Your task to perform on an android device: create a new album in the google photos Image 0: 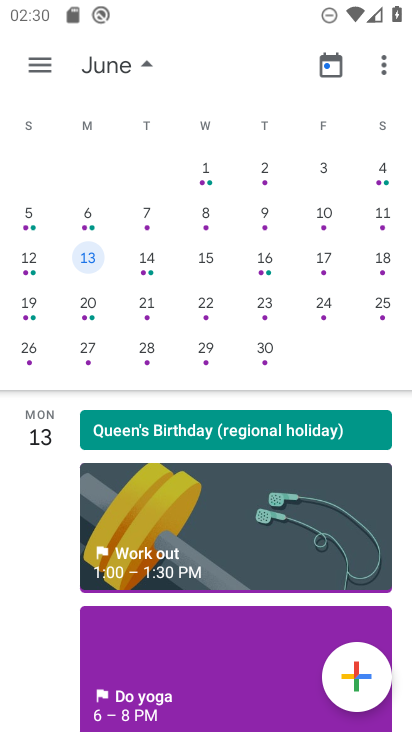
Step 0: press home button
Your task to perform on an android device: create a new album in the google photos Image 1: 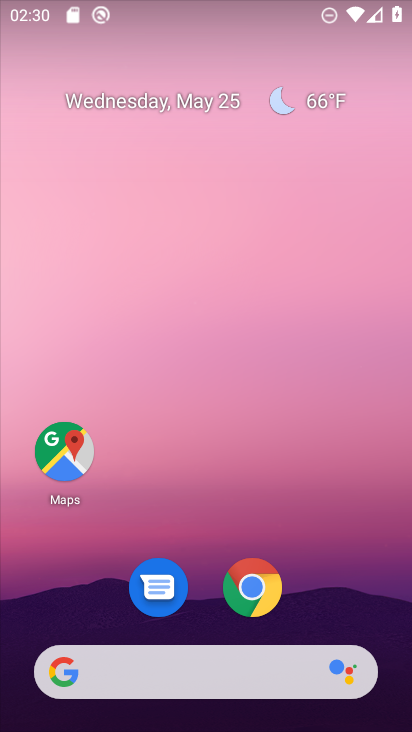
Step 1: drag from (391, 628) to (378, 234)
Your task to perform on an android device: create a new album in the google photos Image 2: 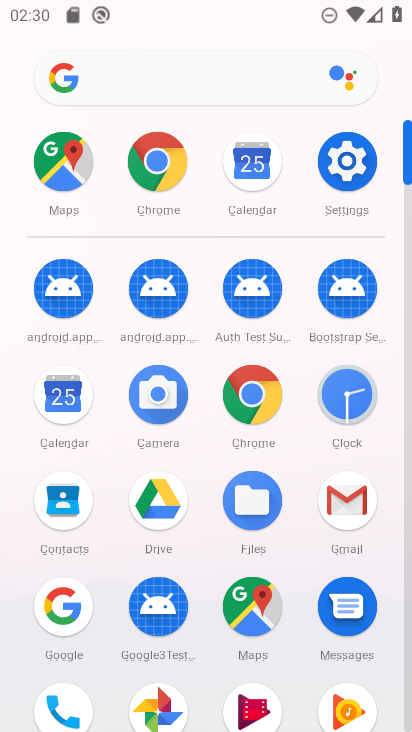
Step 2: drag from (290, 667) to (298, 444)
Your task to perform on an android device: create a new album in the google photos Image 3: 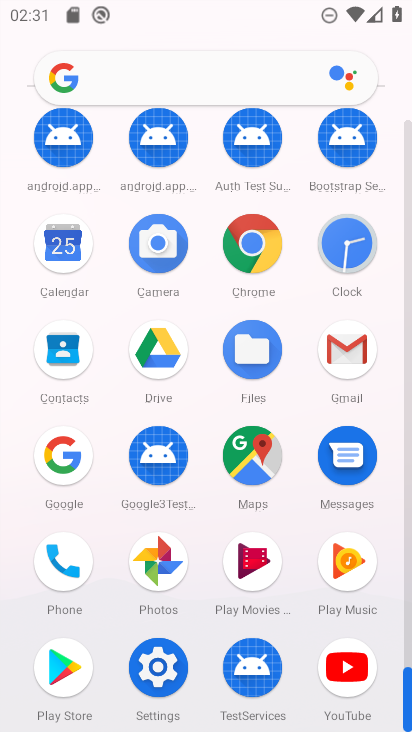
Step 3: click (161, 560)
Your task to perform on an android device: create a new album in the google photos Image 4: 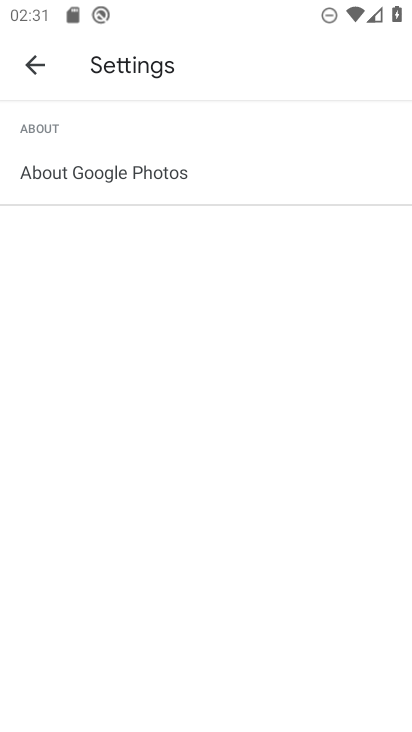
Step 4: click (34, 54)
Your task to perform on an android device: create a new album in the google photos Image 5: 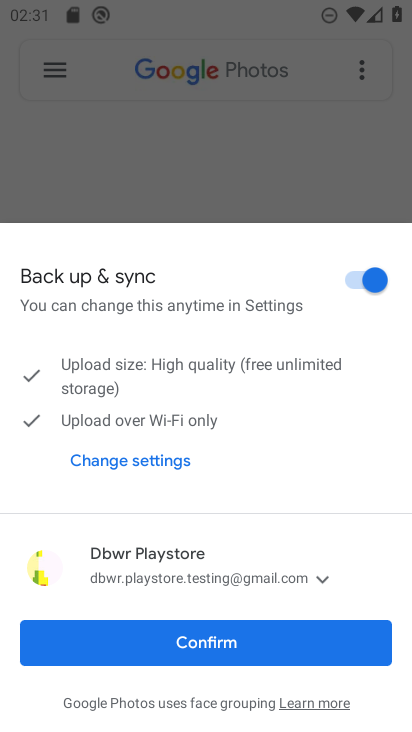
Step 5: click (293, 637)
Your task to perform on an android device: create a new album in the google photos Image 6: 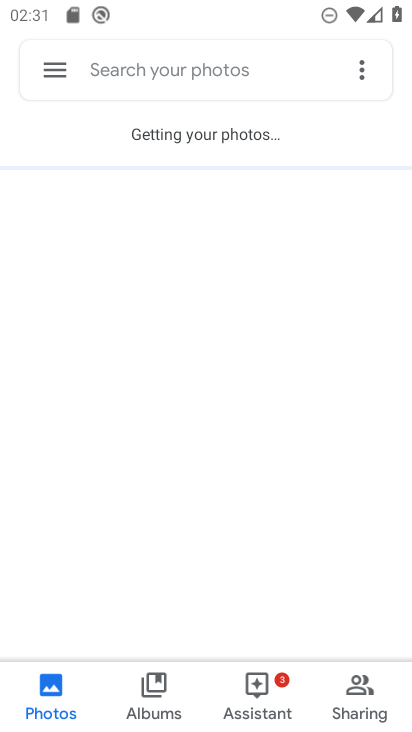
Step 6: click (360, 77)
Your task to perform on an android device: create a new album in the google photos Image 7: 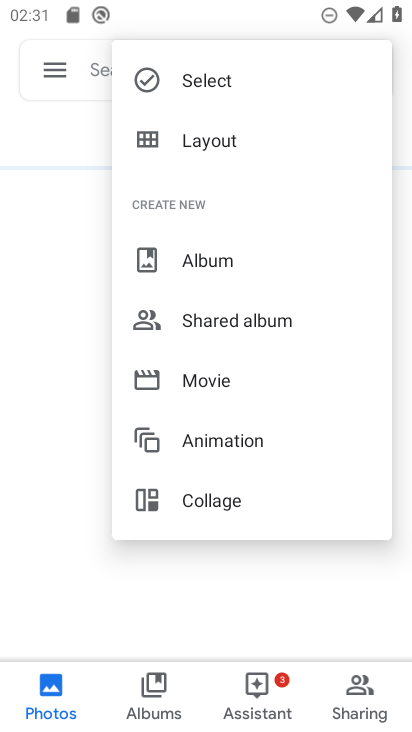
Step 7: click (226, 258)
Your task to perform on an android device: create a new album in the google photos Image 8: 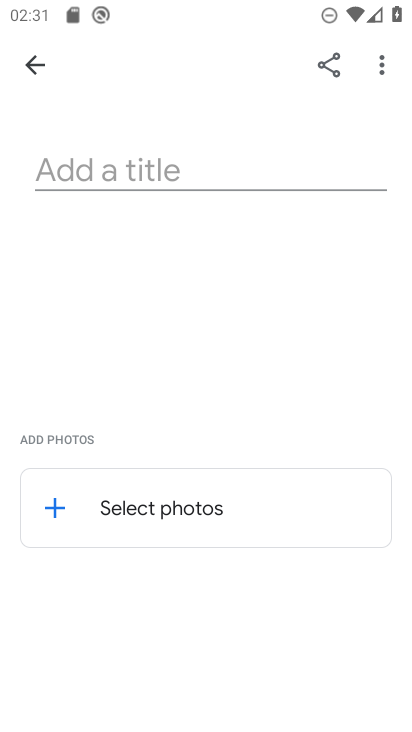
Step 8: click (220, 169)
Your task to perform on an android device: create a new album in the google photos Image 9: 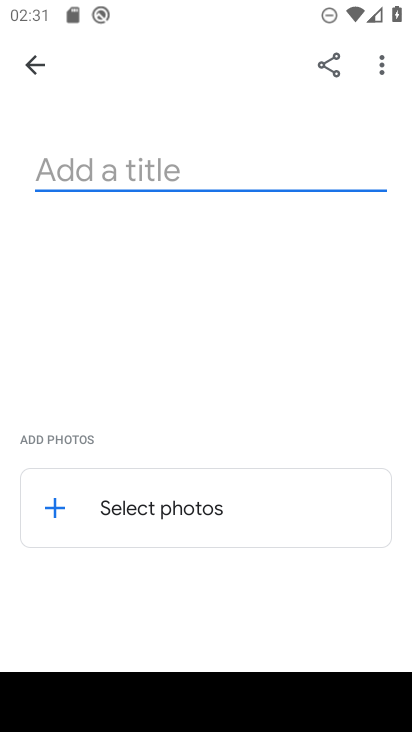
Step 9: click (220, 169)
Your task to perform on an android device: create a new album in the google photos Image 10: 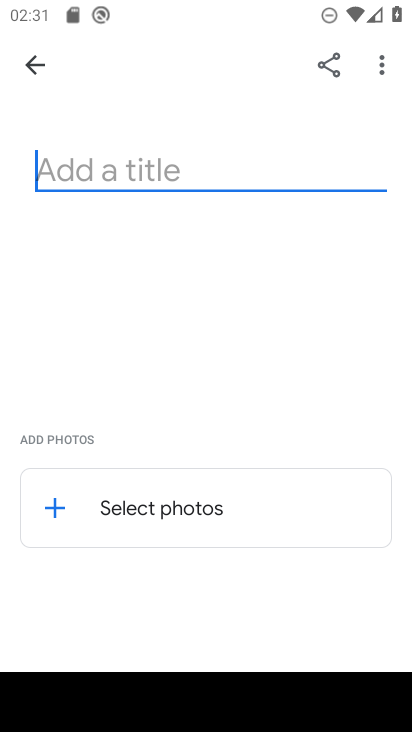
Step 10: type "hhh"
Your task to perform on an android device: create a new album in the google photos Image 11: 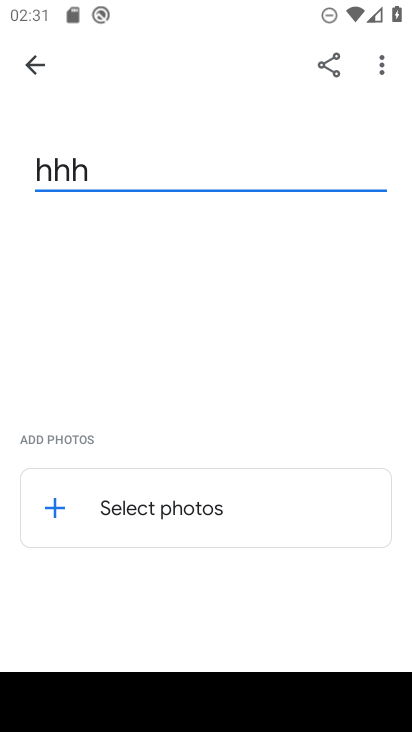
Step 11: click (220, 522)
Your task to perform on an android device: create a new album in the google photos Image 12: 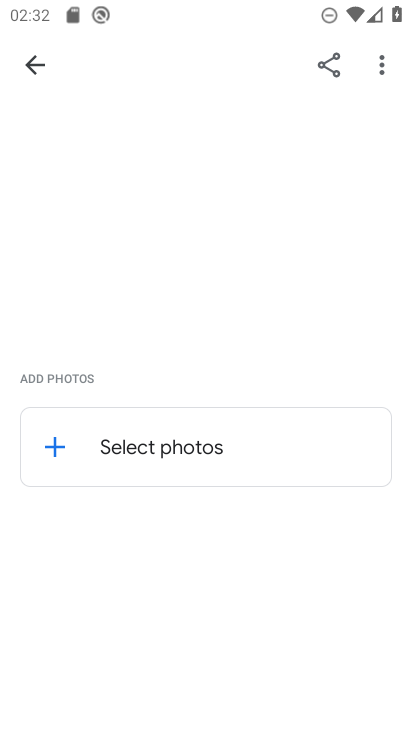
Step 12: click (125, 448)
Your task to perform on an android device: create a new album in the google photos Image 13: 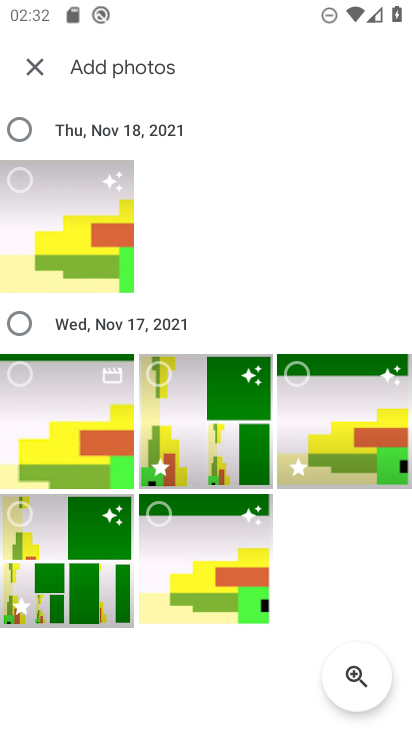
Step 13: click (15, 215)
Your task to perform on an android device: create a new album in the google photos Image 14: 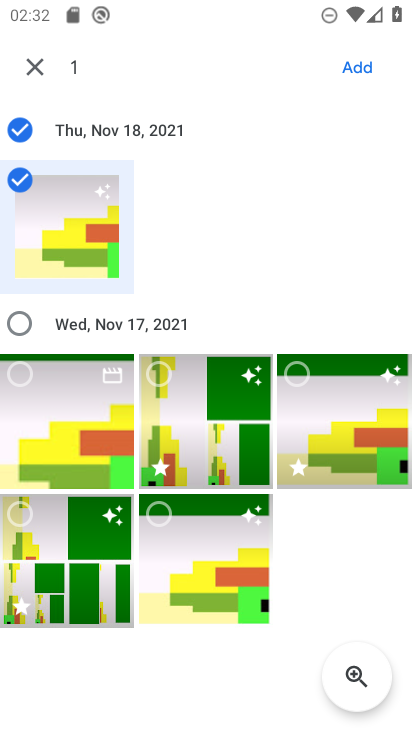
Step 14: click (346, 65)
Your task to perform on an android device: create a new album in the google photos Image 15: 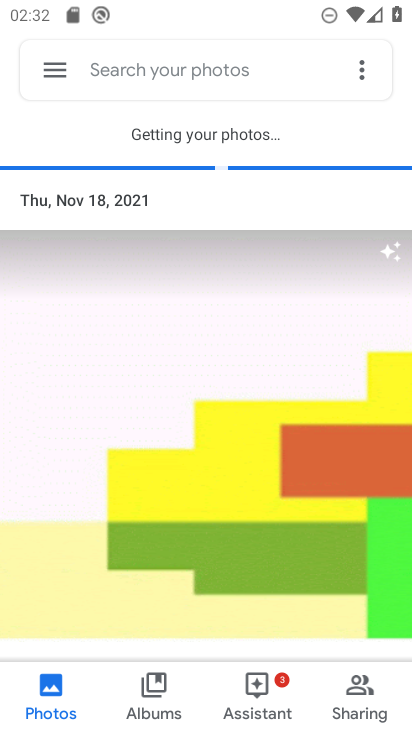
Step 15: task complete